Your task to perform on an android device: Clear the cart on amazon.com. Search for "macbook" on amazon.com, select the first entry, and add it to the cart. Image 0: 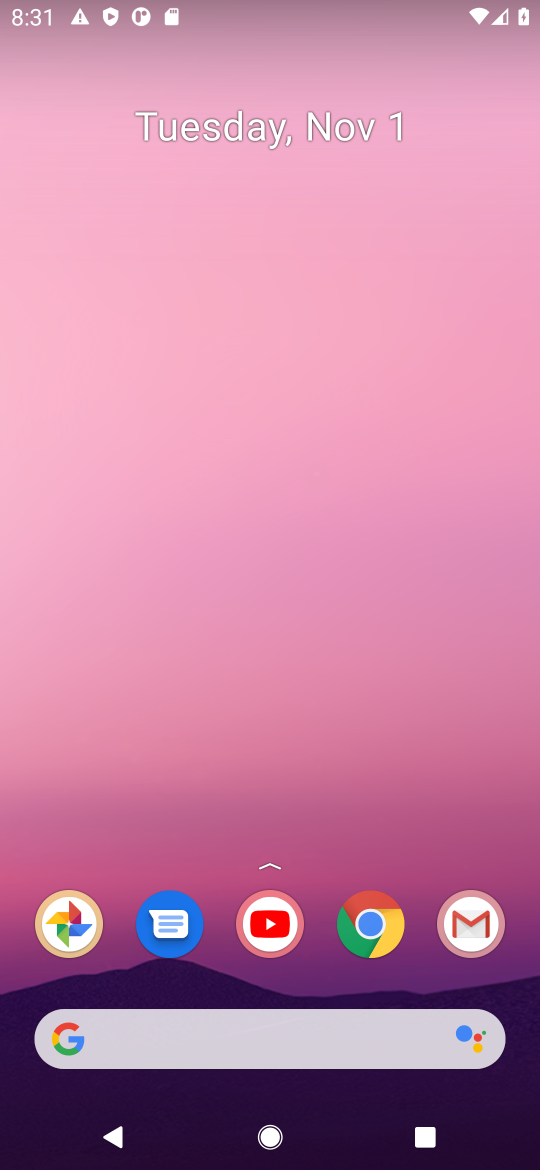
Step 0: press home button
Your task to perform on an android device: Clear the cart on amazon.com. Search for "macbook" on amazon.com, select the first entry, and add it to the cart. Image 1: 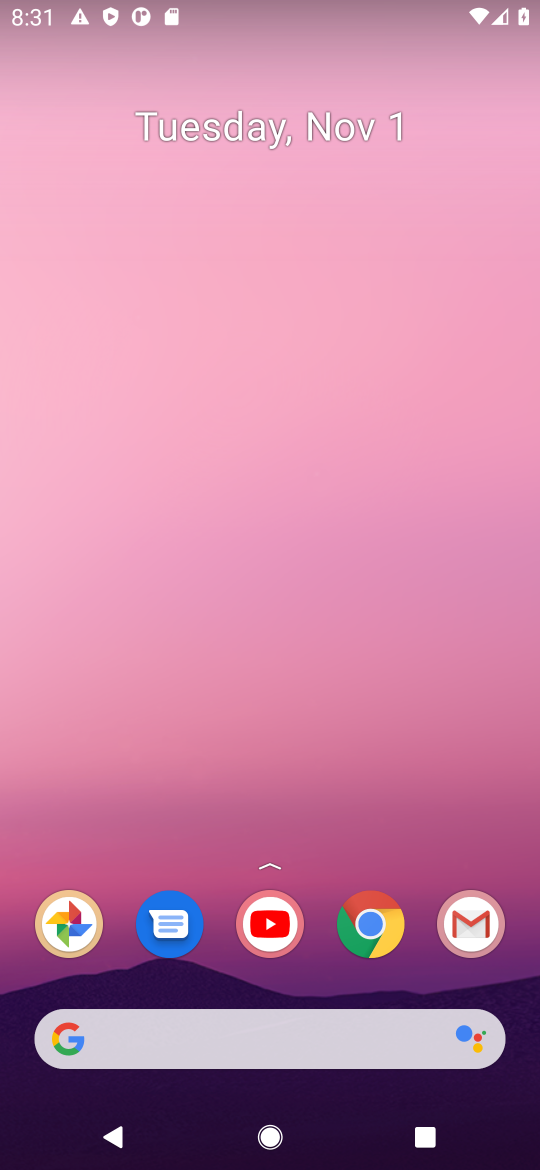
Step 1: click (105, 1032)
Your task to perform on an android device: Clear the cart on amazon.com. Search for "macbook" on amazon.com, select the first entry, and add it to the cart. Image 2: 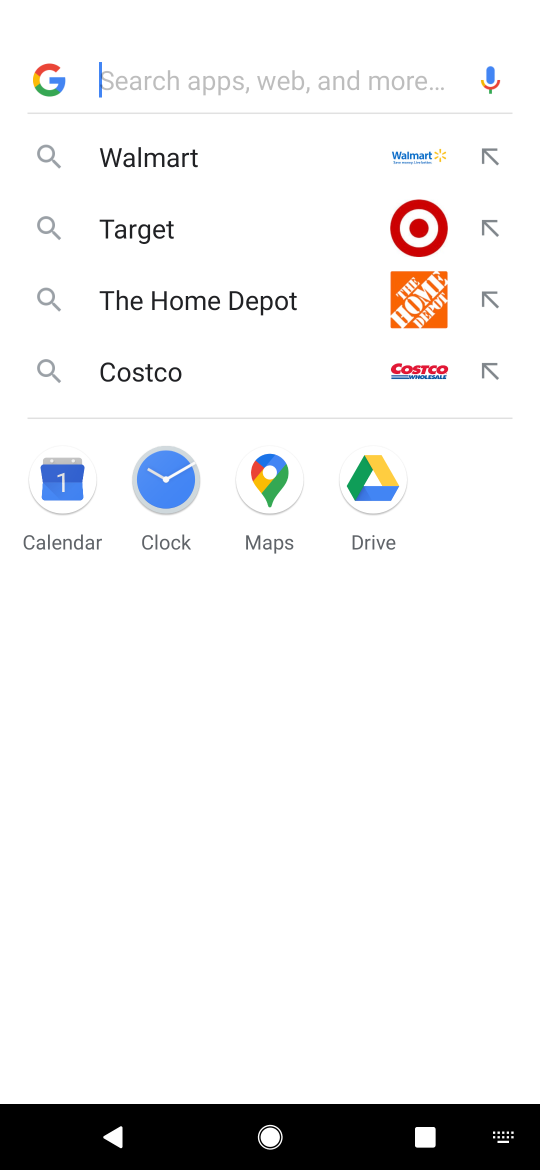
Step 2: type "amazon.com"
Your task to perform on an android device: Clear the cart on amazon.com. Search for "macbook" on amazon.com, select the first entry, and add it to the cart. Image 3: 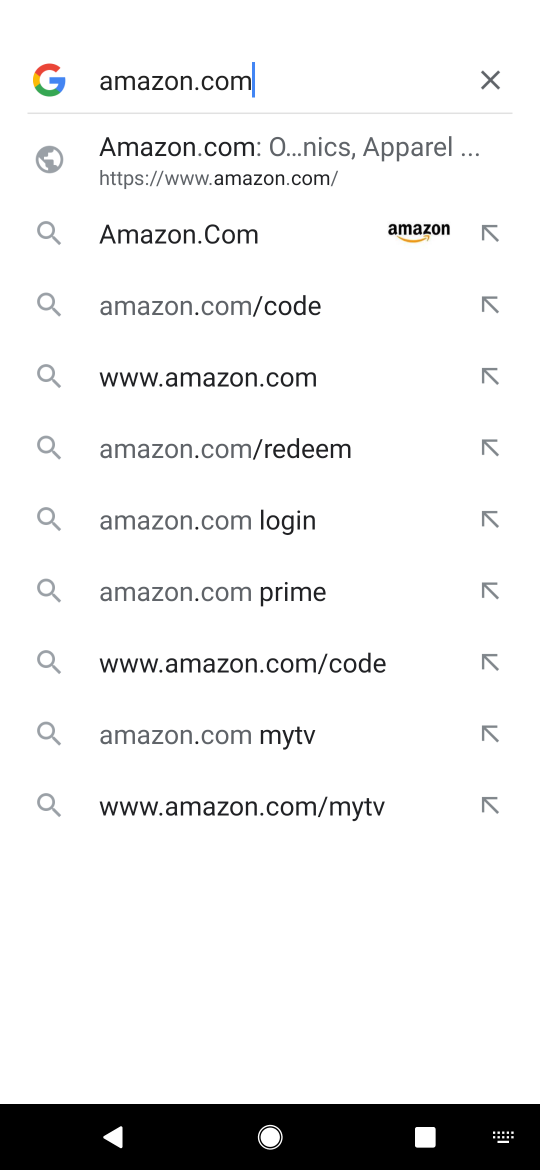
Step 3: press enter
Your task to perform on an android device: Clear the cart on amazon.com. Search for "macbook" on amazon.com, select the first entry, and add it to the cart. Image 4: 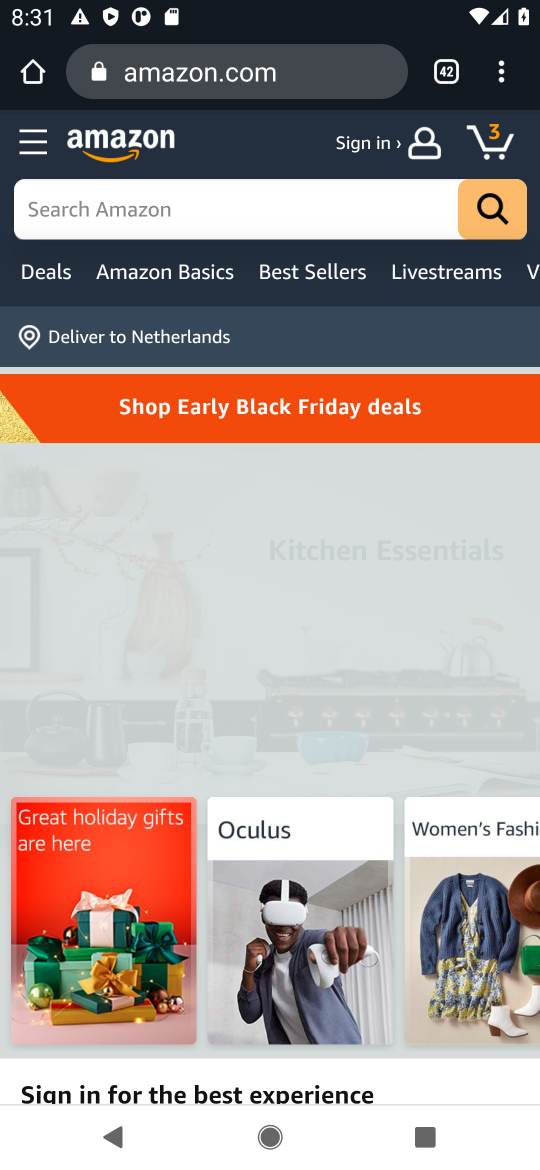
Step 4: click (497, 137)
Your task to perform on an android device: Clear the cart on amazon.com. Search for "macbook" on amazon.com, select the first entry, and add it to the cart. Image 5: 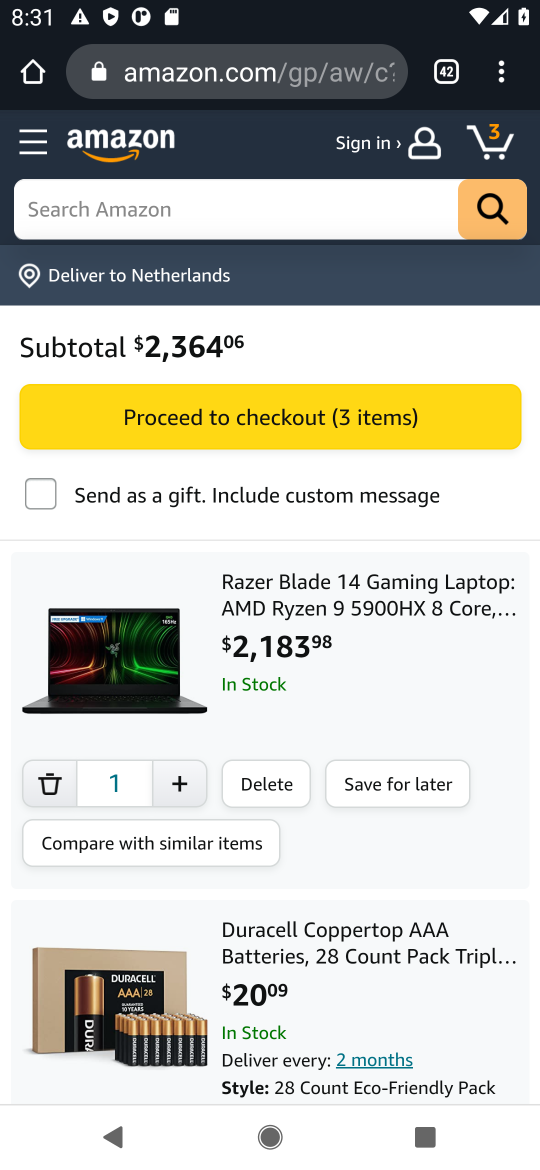
Step 5: click (44, 782)
Your task to perform on an android device: Clear the cart on amazon.com. Search for "macbook" on amazon.com, select the first entry, and add it to the cart. Image 6: 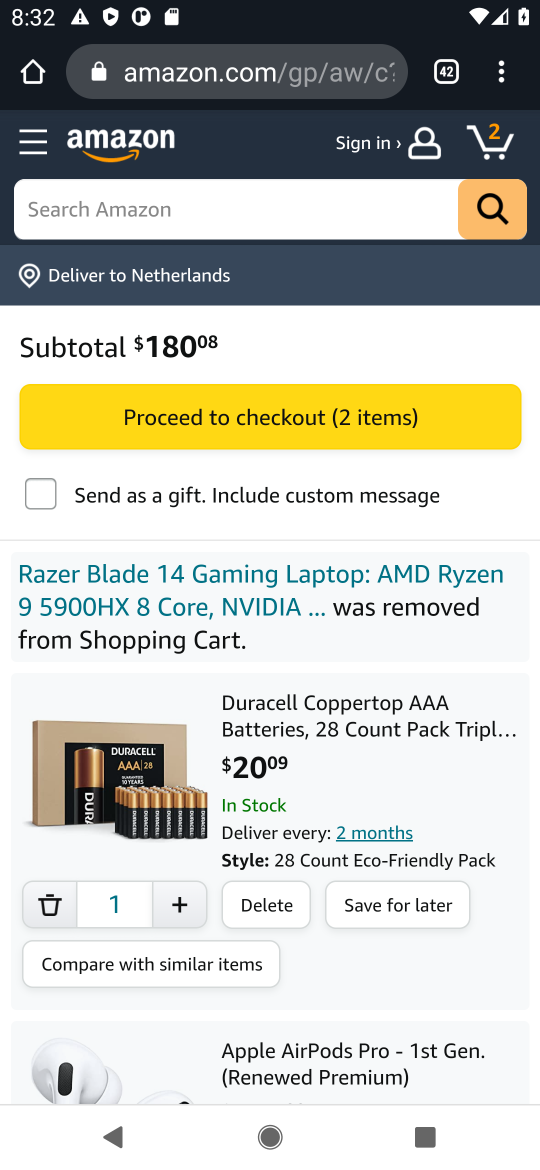
Step 6: click (44, 909)
Your task to perform on an android device: Clear the cart on amazon.com. Search for "macbook" on amazon.com, select the first entry, and add it to the cart. Image 7: 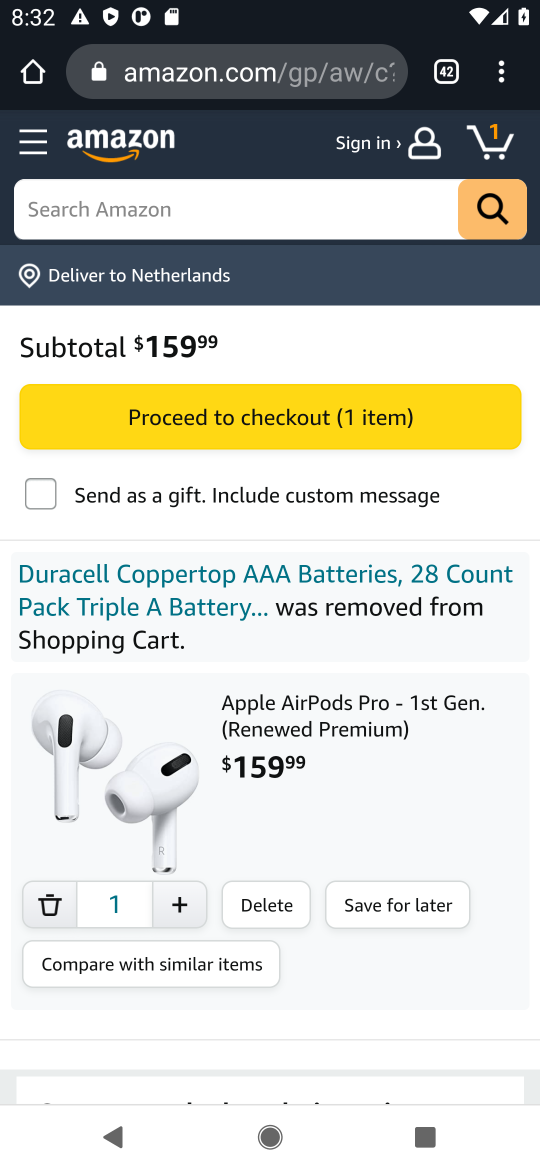
Step 7: click (44, 909)
Your task to perform on an android device: Clear the cart on amazon.com. Search for "macbook" on amazon.com, select the first entry, and add it to the cart. Image 8: 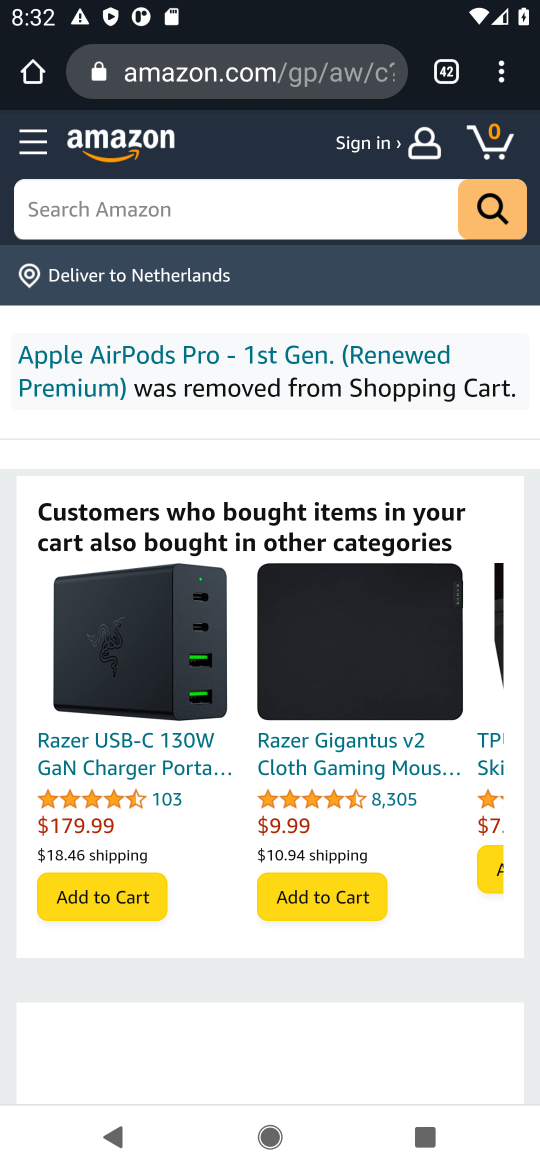
Step 8: click (140, 212)
Your task to perform on an android device: Clear the cart on amazon.com. Search for "macbook" on amazon.com, select the first entry, and add it to the cart. Image 9: 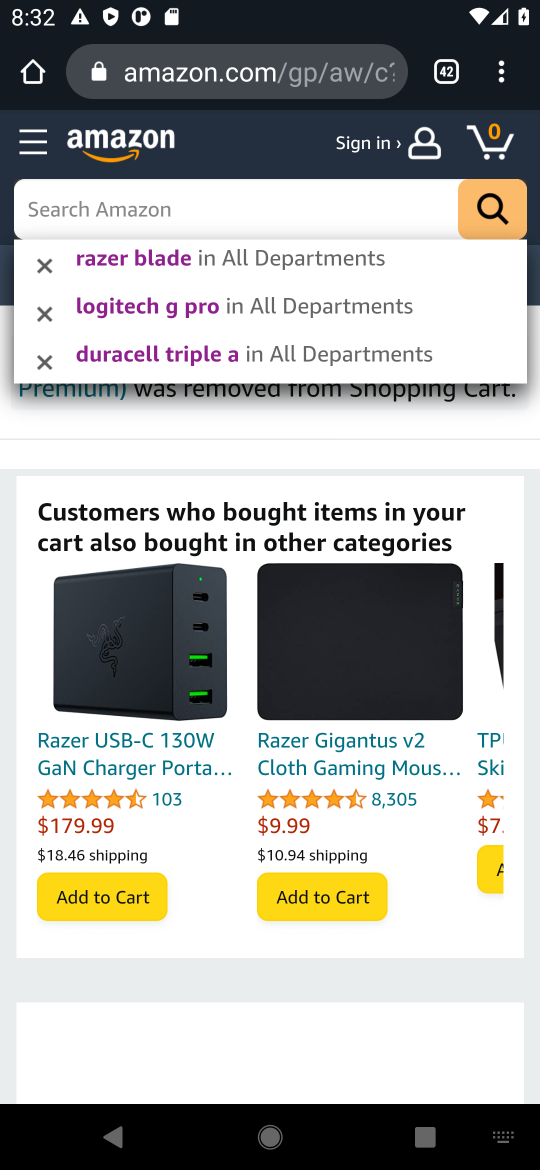
Step 9: type "macbook"
Your task to perform on an android device: Clear the cart on amazon.com. Search for "macbook" on amazon.com, select the first entry, and add it to the cart. Image 10: 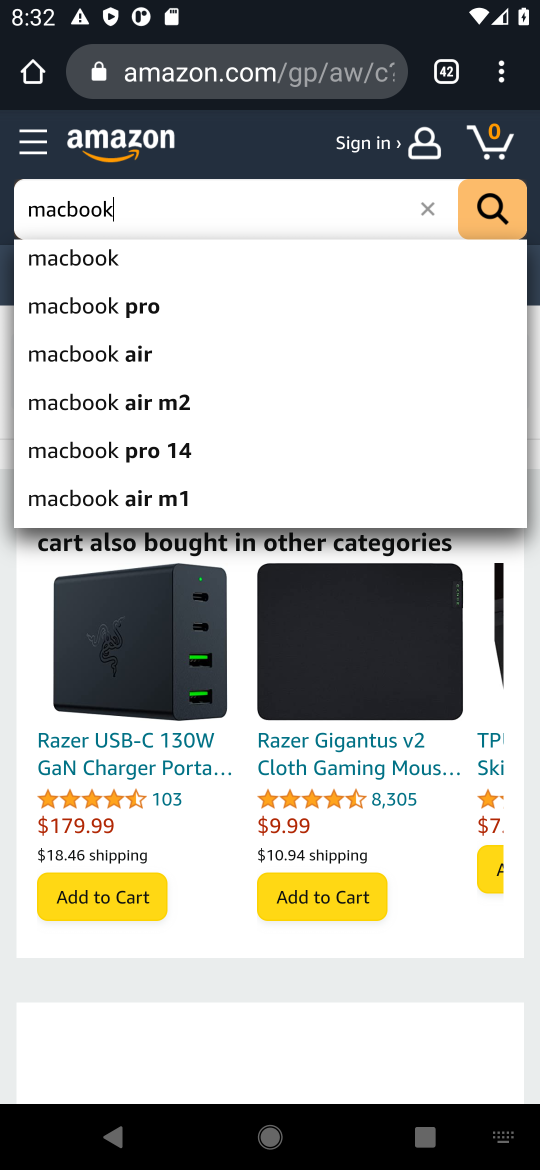
Step 10: click (490, 204)
Your task to perform on an android device: Clear the cart on amazon.com. Search for "macbook" on amazon.com, select the first entry, and add it to the cart. Image 11: 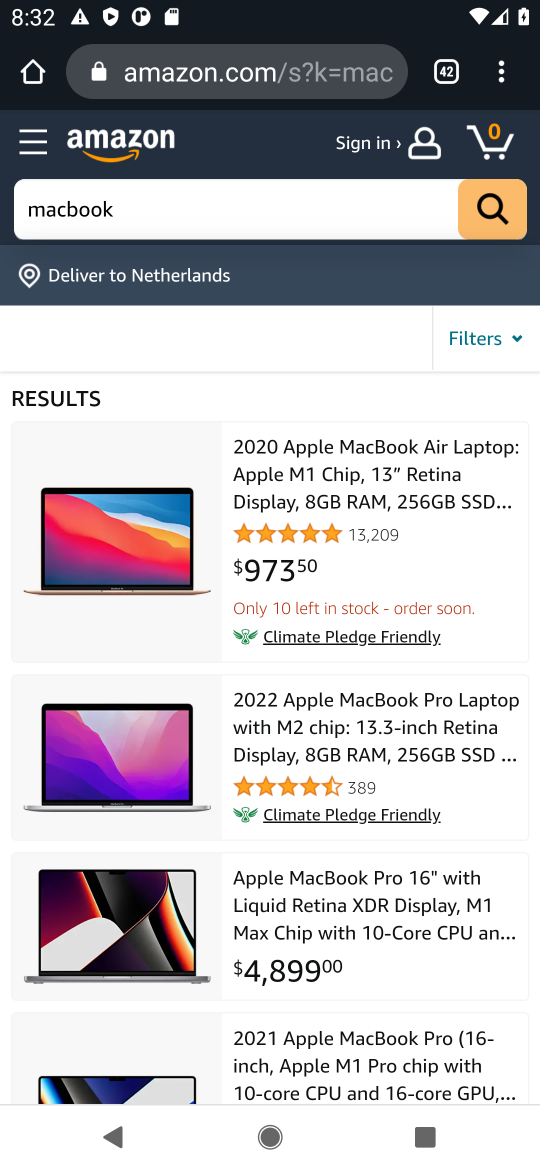
Step 11: click (276, 468)
Your task to perform on an android device: Clear the cart on amazon.com. Search for "macbook" on amazon.com, select the first entry, and add it to the cart. Image 12: 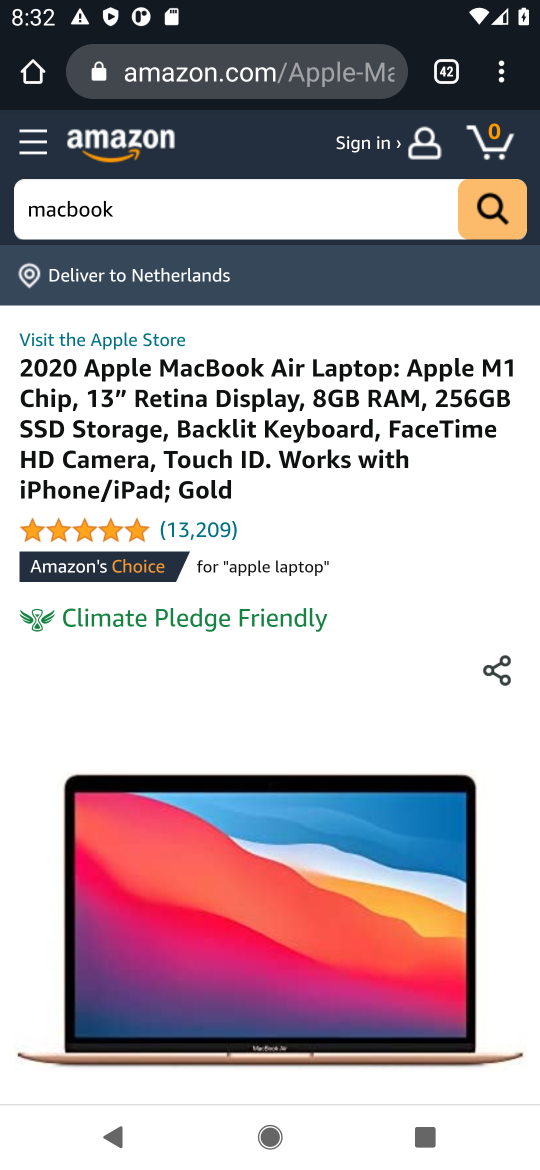
Step 12: drag from (347, 882) to (383, 369)
Your task to perform on an android device: Clear the cart on amazon.com. Search for "macbook" on amazon.com, select the first entry, and add it to the cart. Image 13: 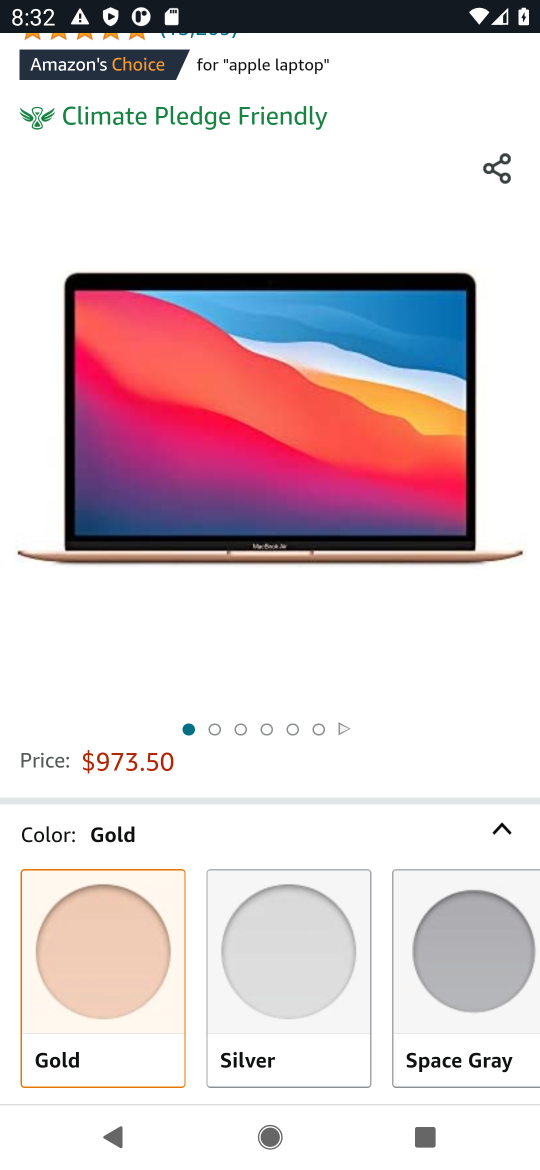
Step 13: drag from (287, 819) to (280, 271)
Your task to perform on an android device: Clear the cart on amazon.com. Search for "macbook" on amazon.com, select the first entry, and add it to the cart. Image 14: 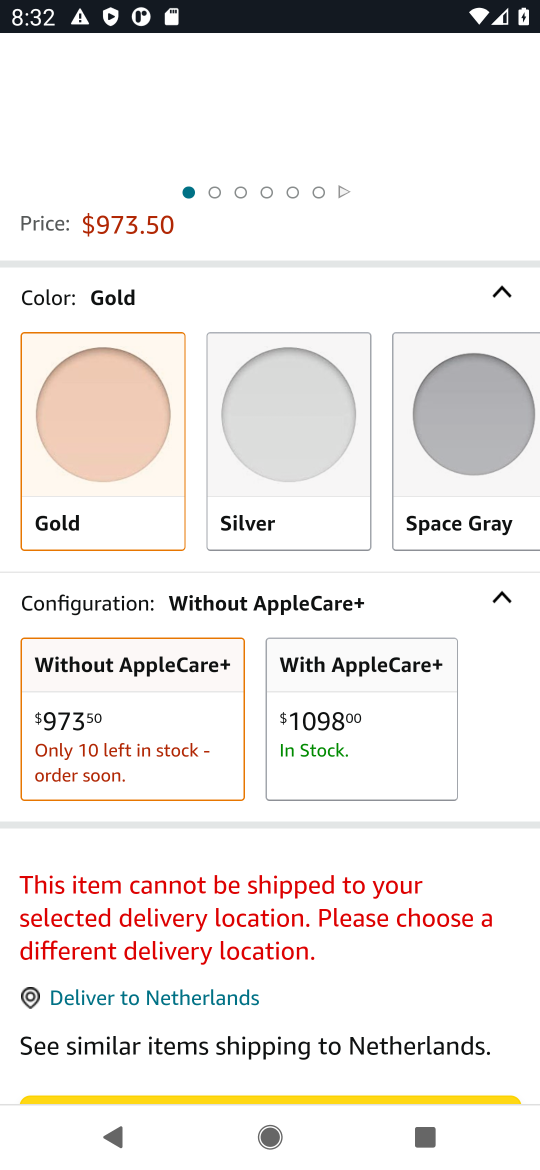
Step 14: drag from (308, 864) to (316, 288)
Your task to perform on an android device: Clear the cart on amazon.com. Search for "macbook" on amazon.com, select the first entry, and add it to the cart. Image 15: 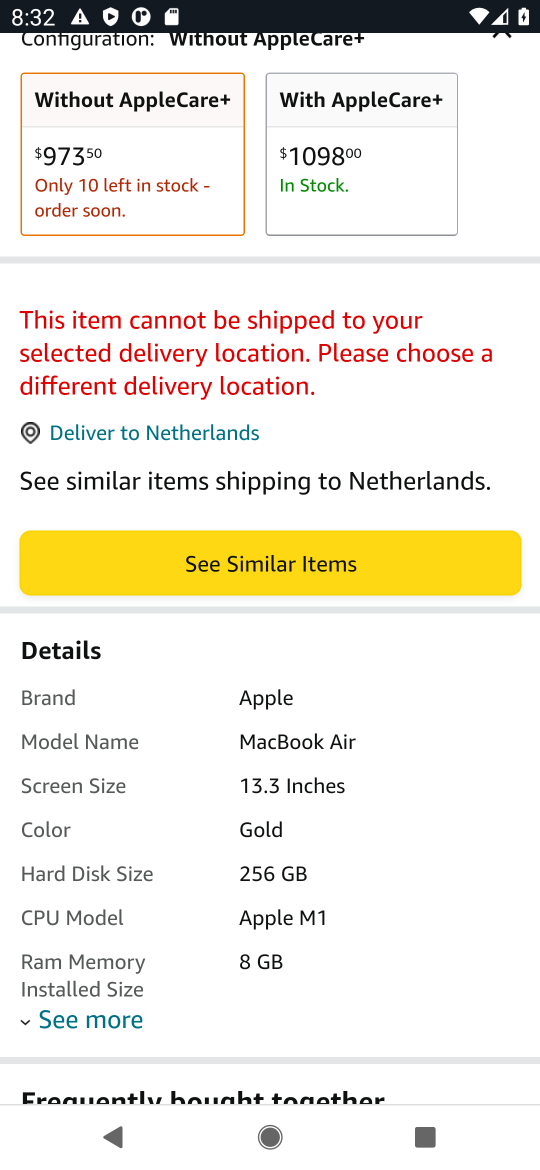
Step 15: drag from (318, 794) to (331, 262)
Your task to perform on an android device: Clear the cart on amazon.com. Search for "macbook" on amazon.com, select the first entry, and add it to the cart. Image 16: 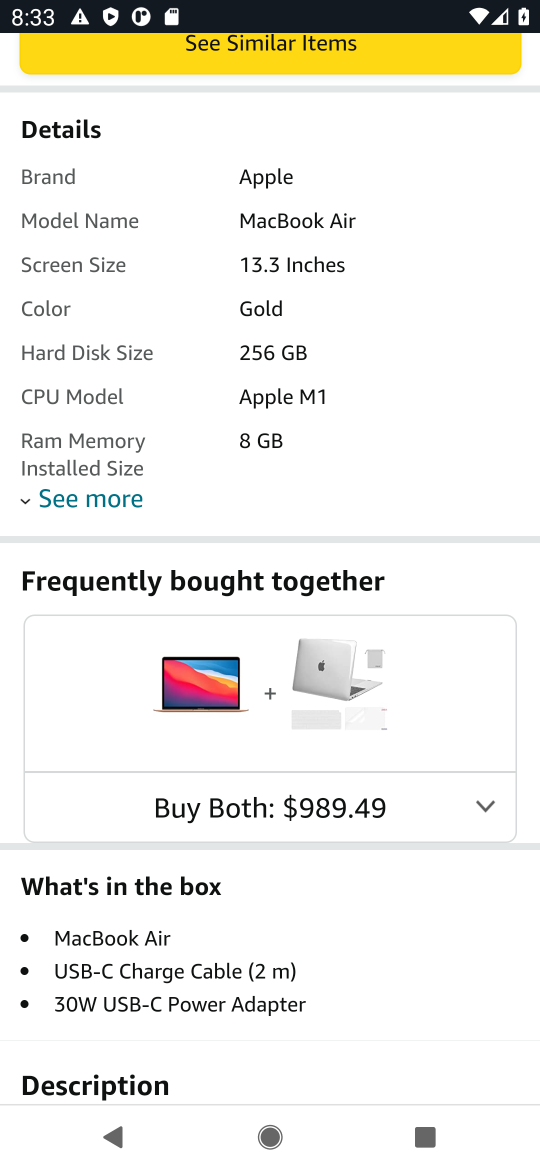
Step 16: press back button
Your task to perform on an android device: Clear the cart on amazon.com. Search for "macbook" on amazon.com, select the first entry, and add it to the cart. Image 17: 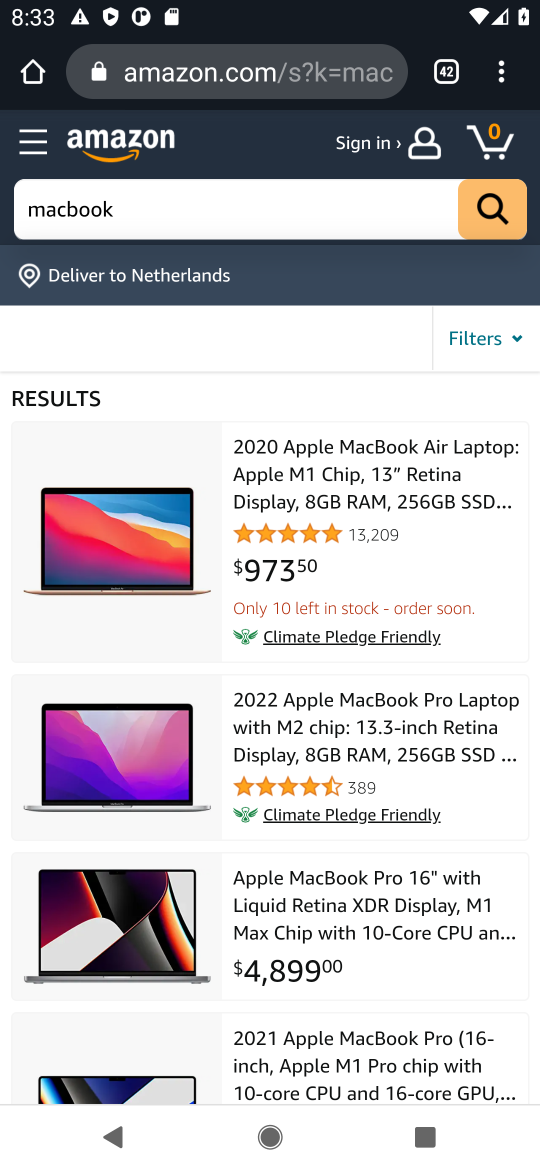
Step 17: click (347, 746)
Your task to perform on an android device: Clear the cart on amazon.com. Search for "macbook" on amazon.com, select the first entry, and add it to the cart. Image 18: 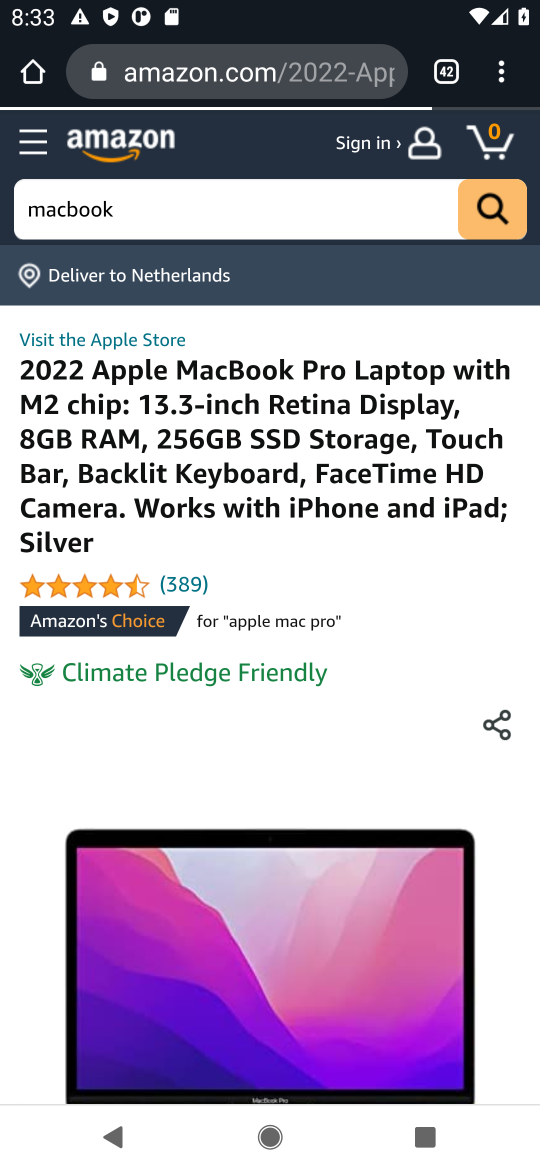
Step 18: task complete